Your task to perform on an android device: Go to privacy settings Image 0: 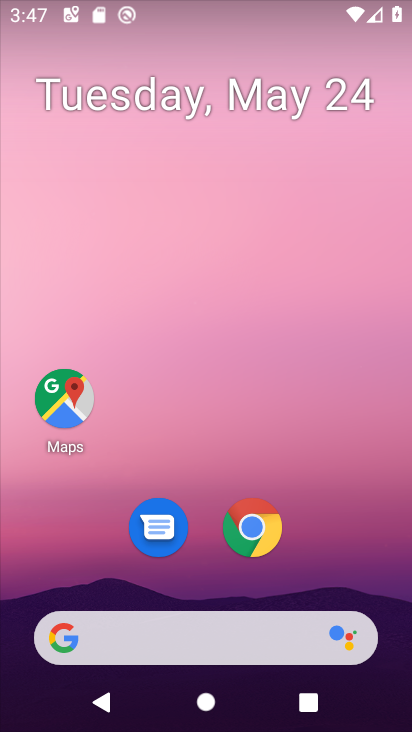
Step 0: drag from (357, 602) to (330, 17)
Your task to perform on an android device: Go to privacy settings Image 1: 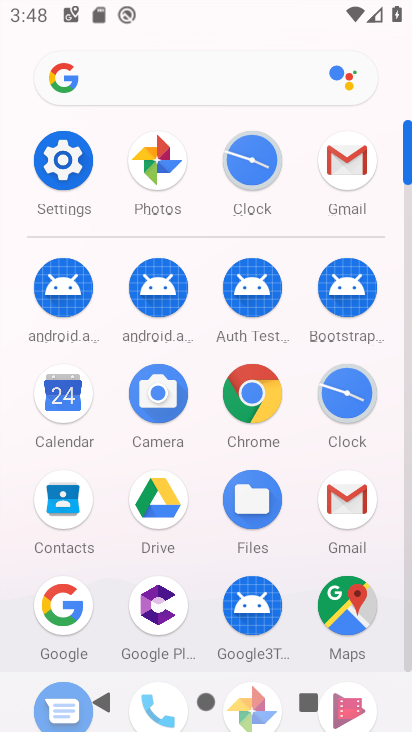
Step 1: click (54, 167)
Your task to perform on an android device: Go to privacy settings Image 2: 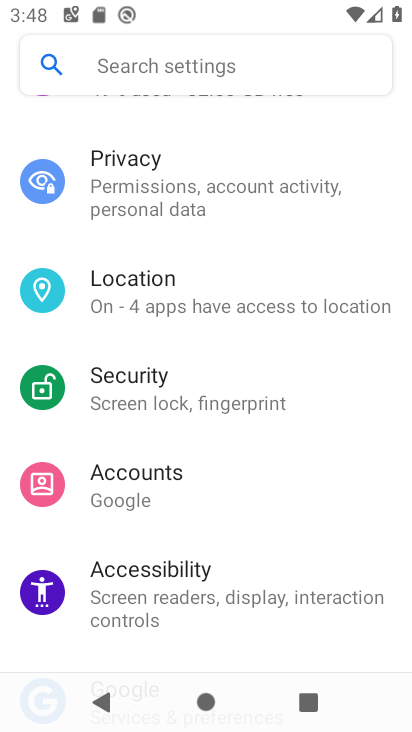
Step 2: click (150, 203)
Your task to perform on an android device: Go to privacy settings Image 3: 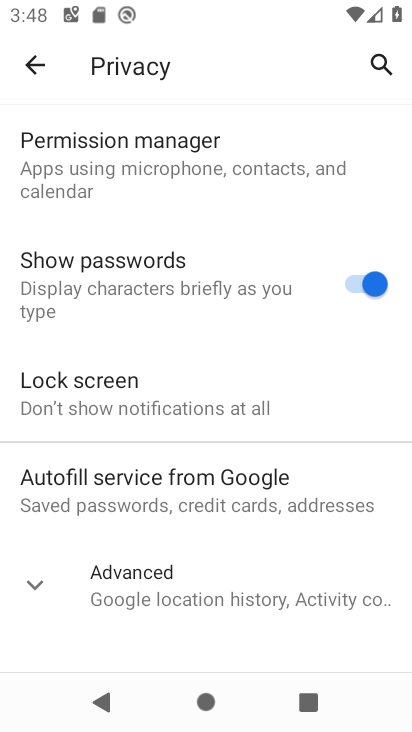
Step 3: task complete